Your task to perform on an android device: Check the news Image 0: 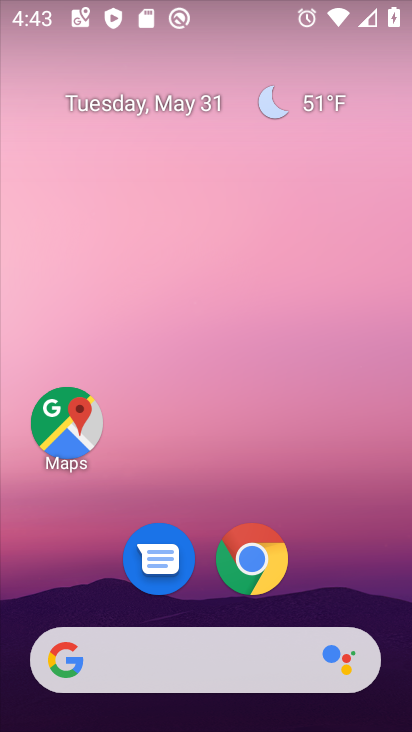
Step 0: click (199, 646)
Your task to perform on an android device: Check the news Image 1: 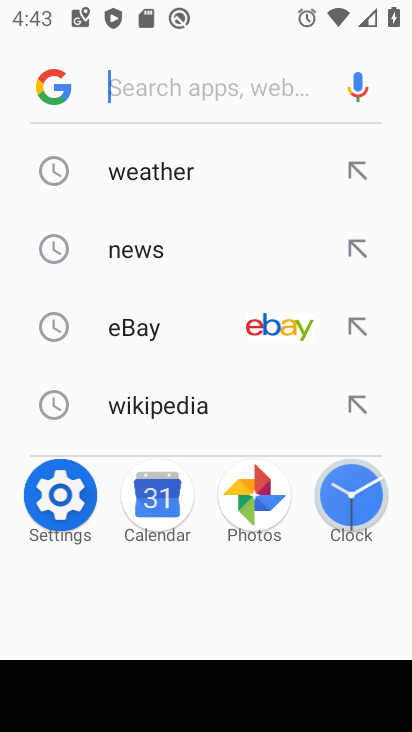
Step 1: type "news"
Your task to perform on an android device: Check the news Image 2: 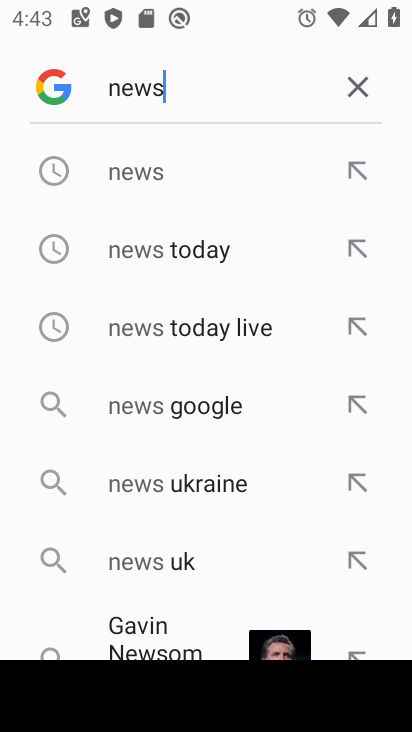
Step 2: click (140, 181)
Your task to perform on an android device: Check the news Image 3: 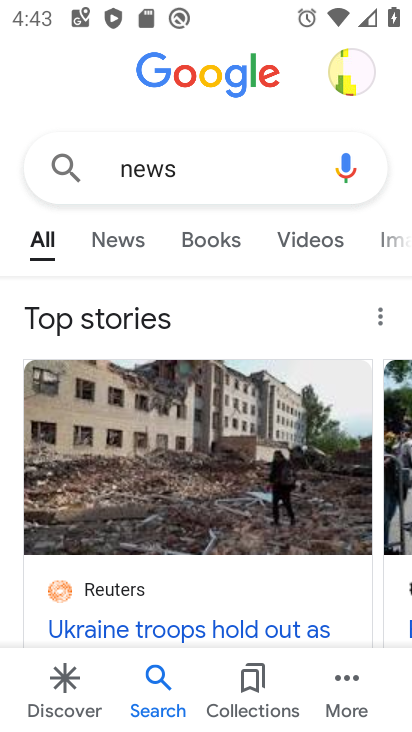
Step 3: task complete